Your task to perform on an android device: Turn off the flashlight Image 0: 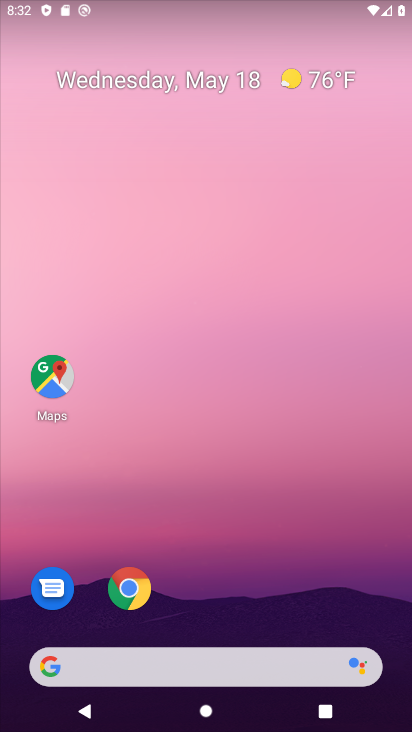
Step 0: drag from (215, 592) to (270, 56)
Your task to perform on an android device: Turn off the flashlight Image 1: 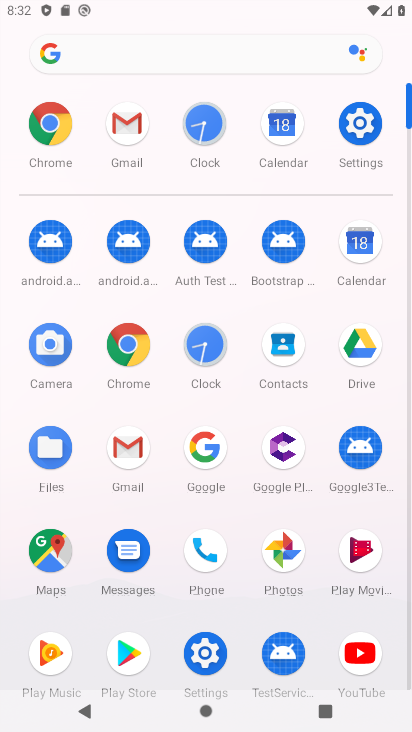
Step 1: click (361, 210)
Your task to perform on an android device: Turn off the flashlight Image 2: 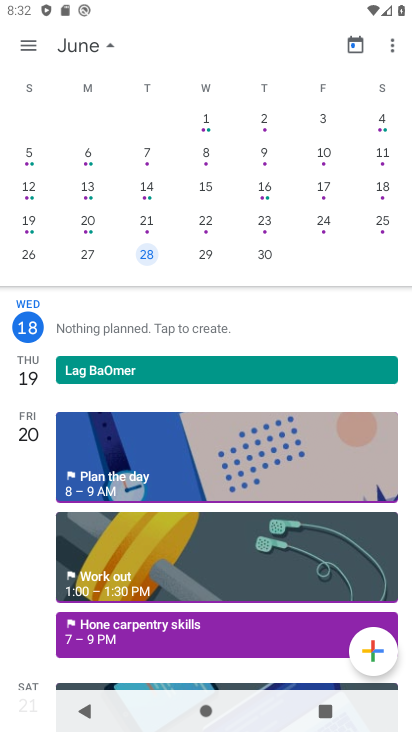
Step 2: press home button
Your task to perform on an android device: Turn off the flashlight Image 3: 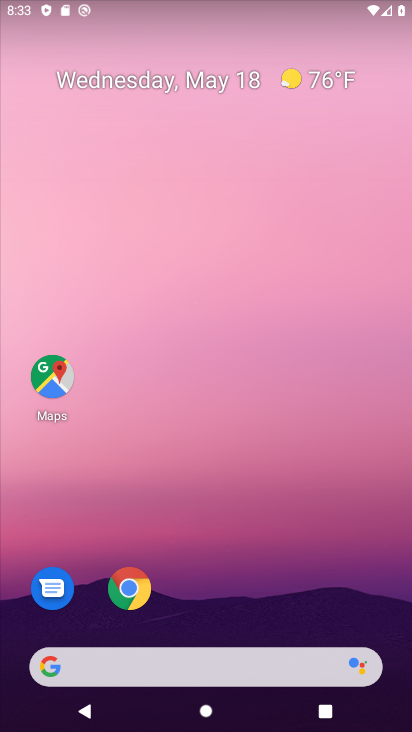
Step 3: drag from (255, 523) to (210, 38)
Your task to perform on an android device: Turn off the flashlight Image 4: 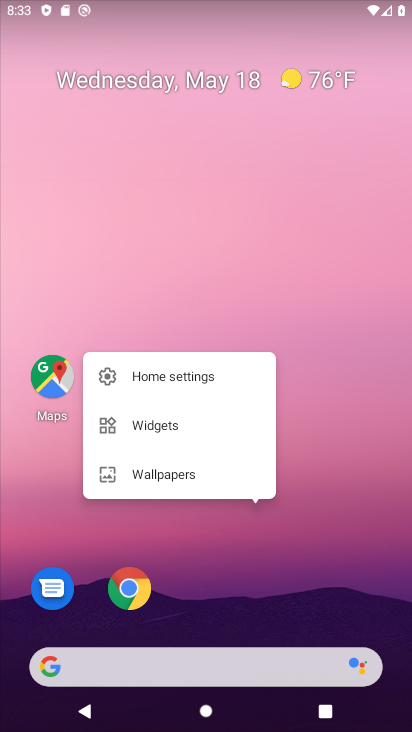
Step 4: click (266, 616)
Your task to perform on an android device: Turn off the flashlight Image 5: 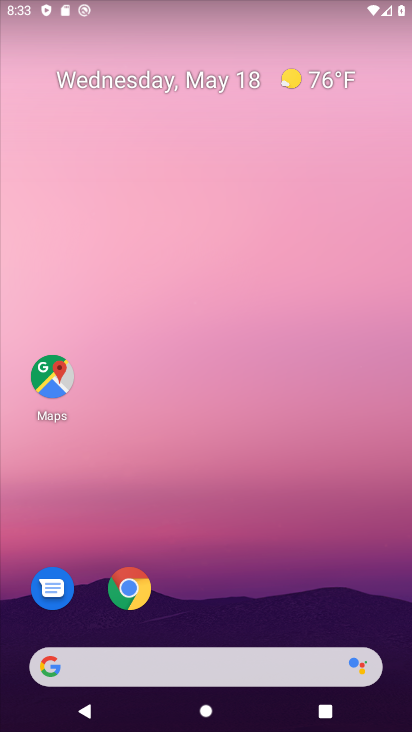
Step 5: drag from (266, 616) to (268, 89)
Your task to perform on an android device: Turn off the flashlight Image 6: 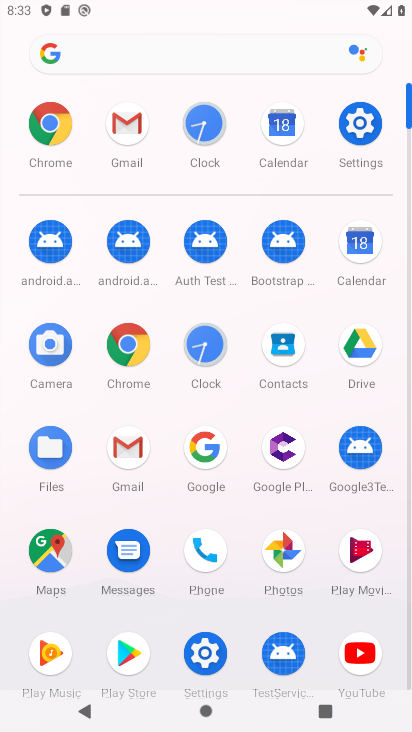
Step 6: click (333, 128)
Your task to perform on an android device: Turn off the flashlight Image 7: 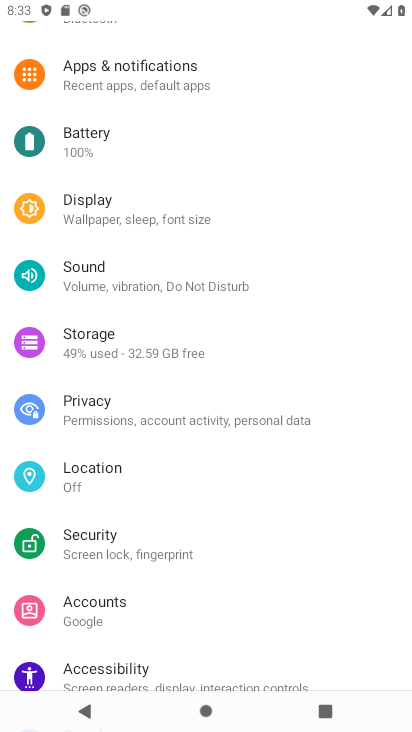
Step 7: task complete